Your task to perform on an android device: change keyboard looks Image 0: 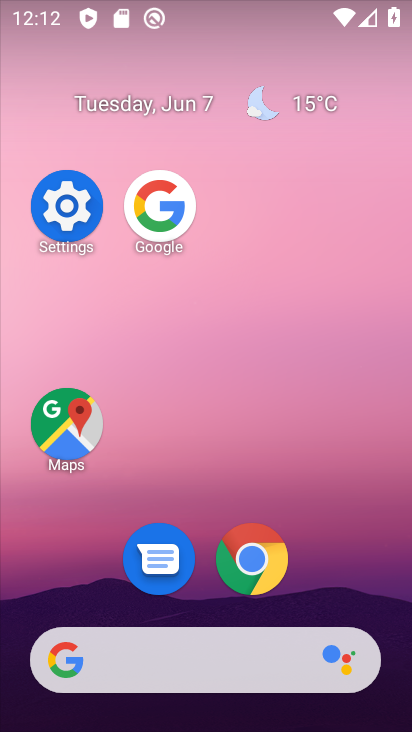
Step 0: click (63, 205)
Your task to perform on an android device: change keyboard looks Image 1: 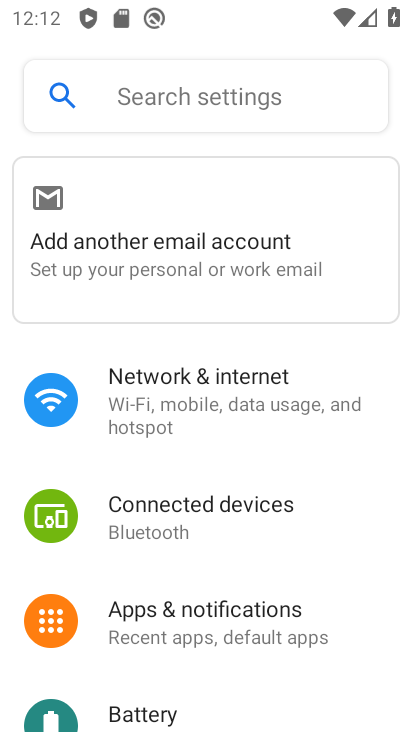
Step 1: drag from (291, 660) to (411, 79)
Your task to perform on an android device: change keyboard looks Image 2: 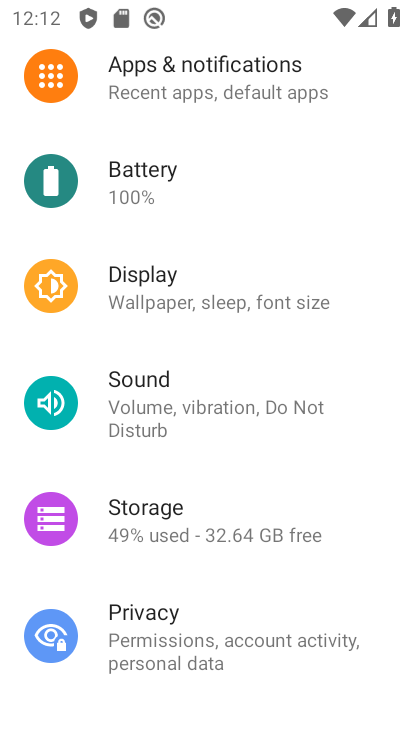
Step 2: drag from (181, 681) to (309, 161)
Your task to perform on an android device: change keyboard looks Image 3: 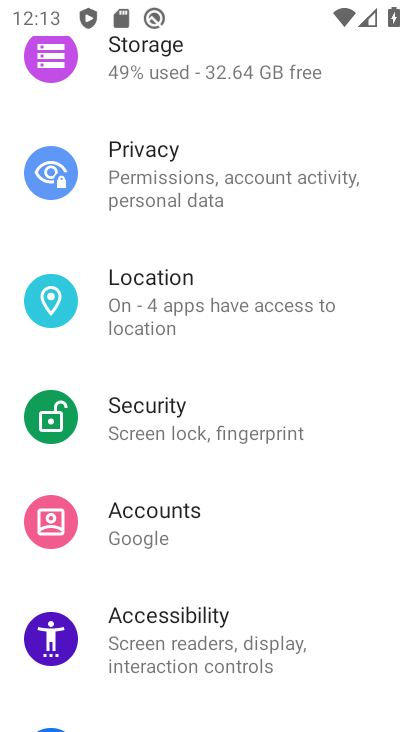
Step 3: drag from (107, 663) to (277, 133)
Your task to perform on an android device: change keyboard looks Image 4: 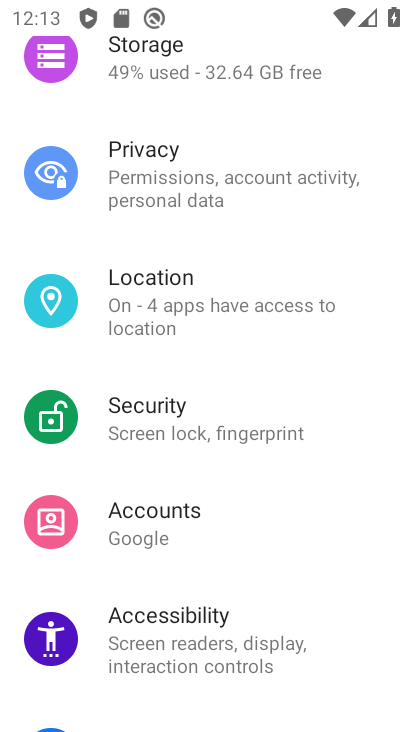
Step 4: drag from (208, 606) to (308, 202)
Your task to perform on an android device: change keyboard looks Image 5: 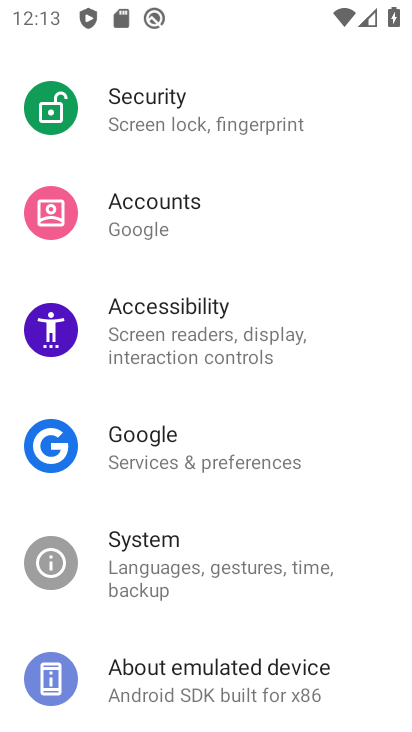
Step 5: click (157, 573)
Your task to perform on an android device: change keyboard looks Image 6: 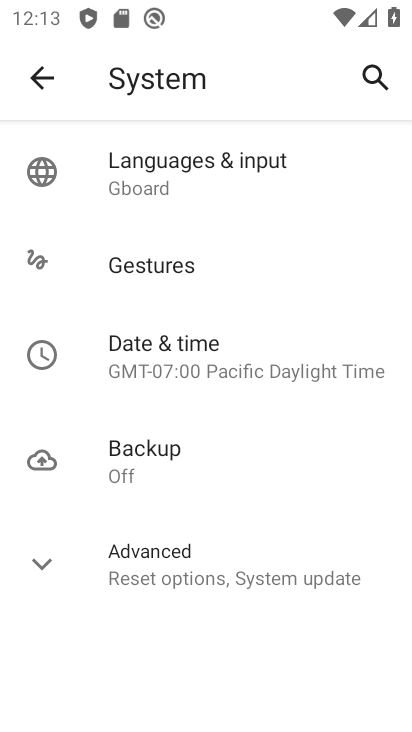
Step 6: click (240, 178)
Your task to perform on an android device: change keyboard looks Image 7: 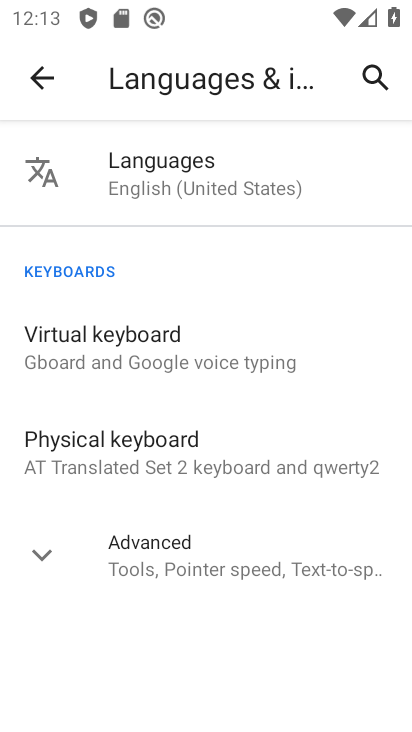
Step 7: click (150, 386)
Your task to perform on an android device: change keyboard looks Image 8: 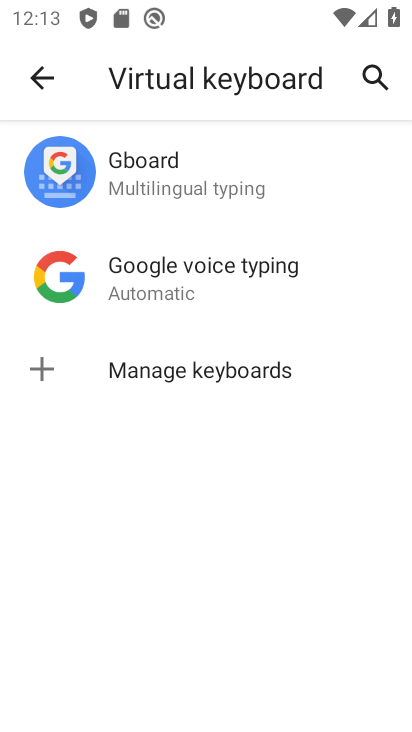
Step 8: click (173, 192)
Your task to perform on an android device: change keyboard looks Image 9: 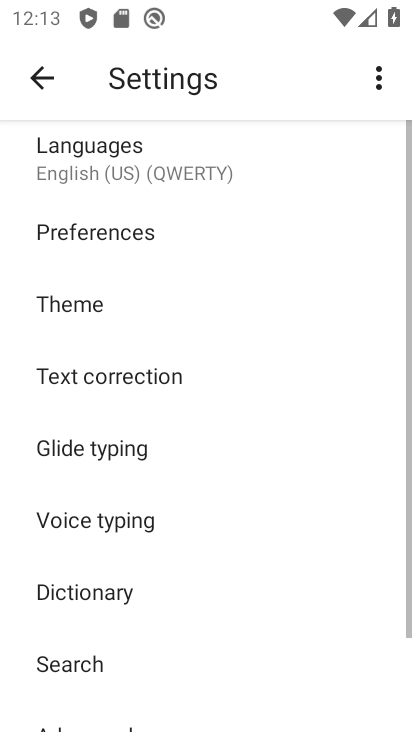
Step 9: click (55, 314)
Your task to perform on an android device: change keyboard looks Image 10: 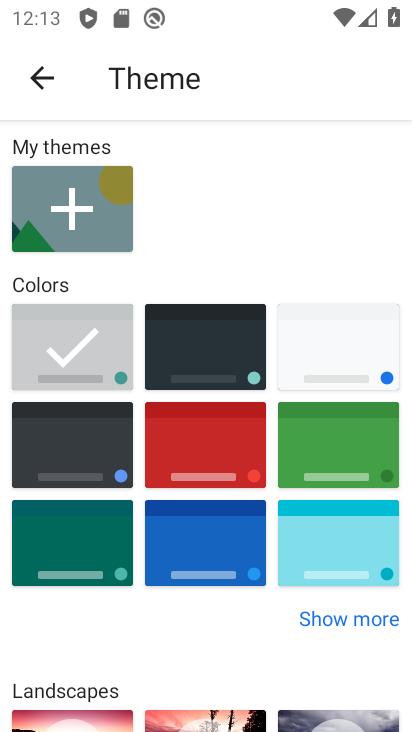
Step 10: click (197, 357)
Your task to perform on an android device: change keyboard looks Image 11: 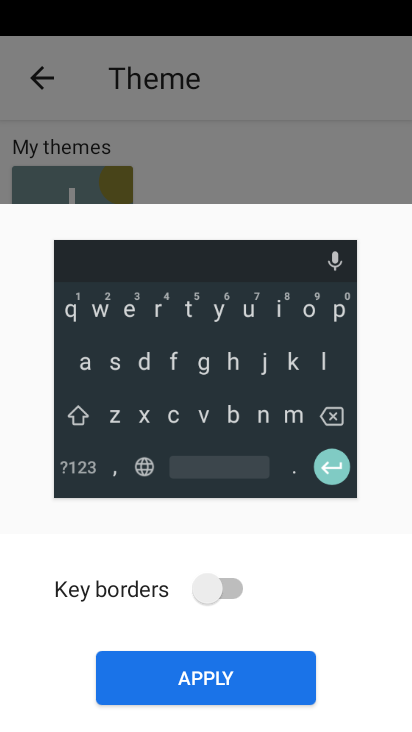
Step 11: click (240, 592)
Your task to perform on an android device: change keyboard looks Image 12: 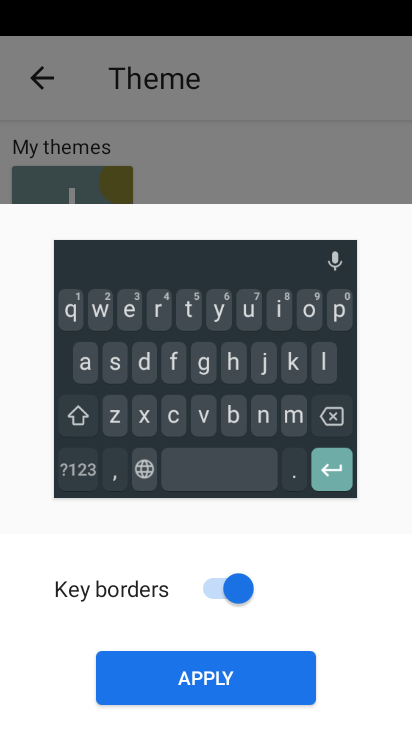
Step 12: click (210, 665)
Your task to perform on an android device: change keyboard looks Image 13: 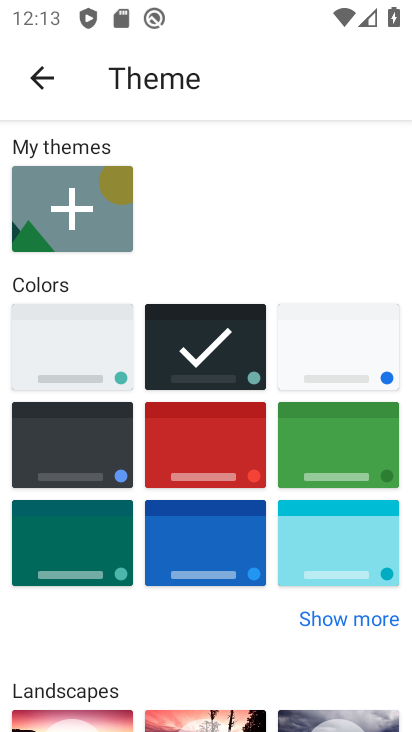
Step 13: task complete